Your task to perform on an android device: Go to Yahoo.com Image 0: 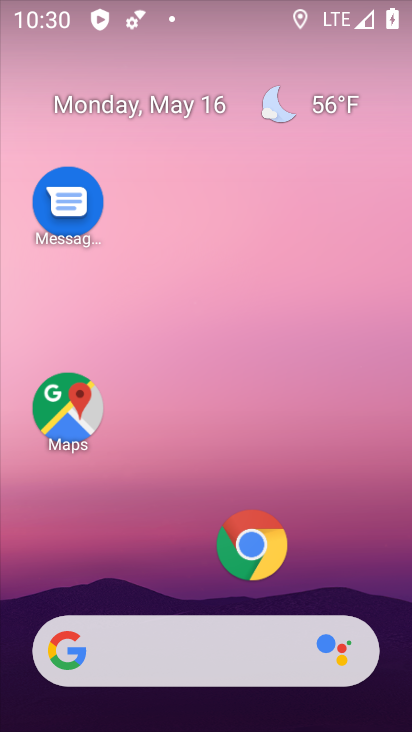
Step 0: click (231, 530)
Your task to perform on an android device: Go to Yahoo.com Image 1: 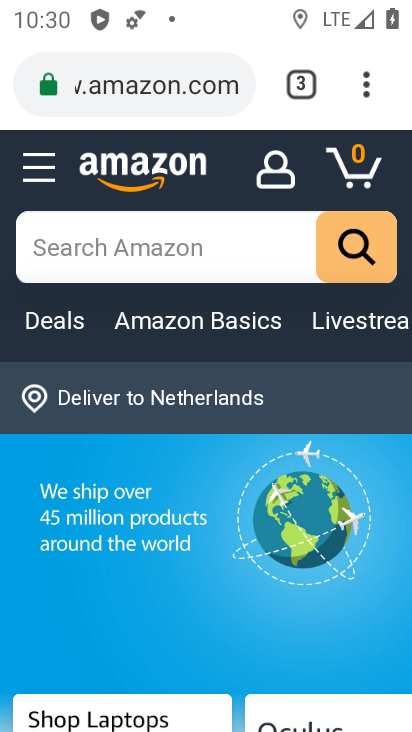
Step 1: click (294, 86)
Your task to perform on an android device: Go to Yahoo.com Image 2: 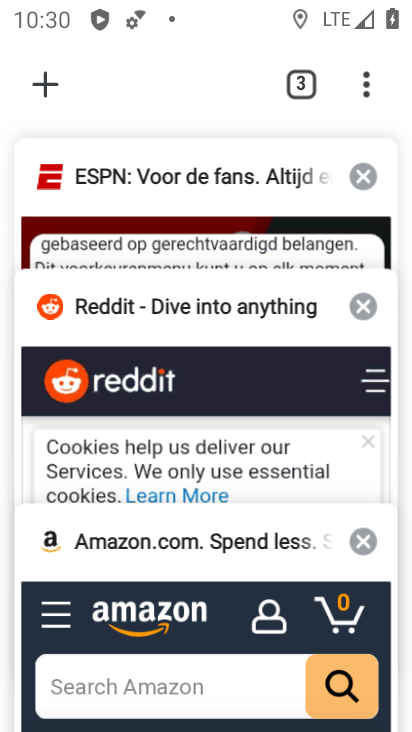
Step 2: click (44, 65)
Your task to perform on an android device: Go to Yahoo.com Image 3: 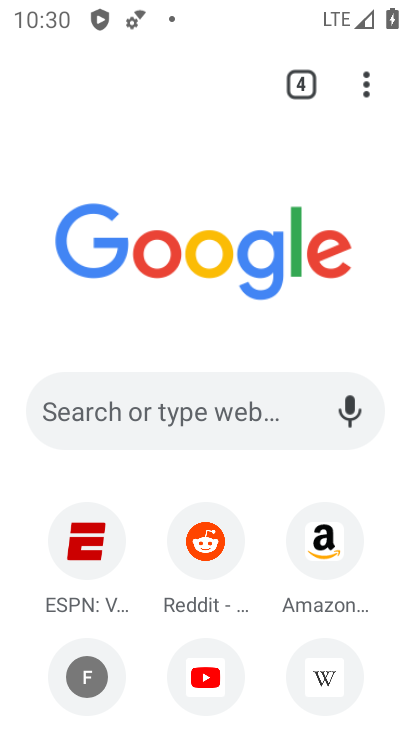
Step 3: click (195, 422)
Your task to perform on an android device: Go to Yahoo.com Image 4: 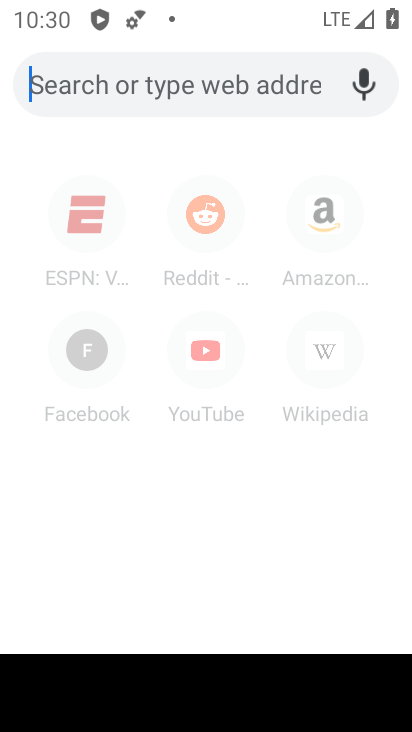
Step 4: type "yahhoo"
Your task to perform on an android device: Go to Yahoo.com Image 5: 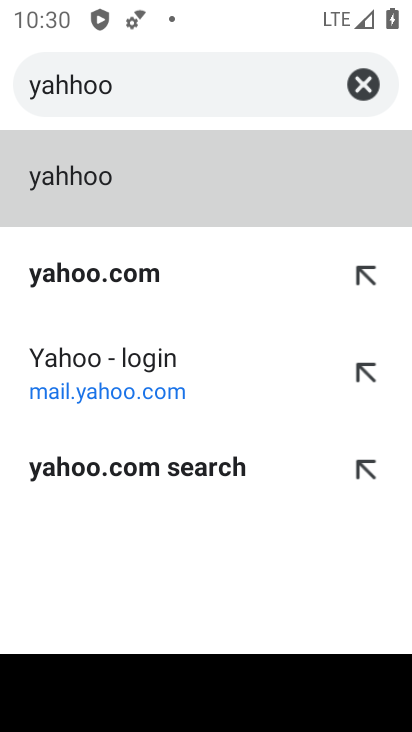
Step 5: click (49, 396)
Your task to perform on an android device: Go to Yahoo.com Image 6: 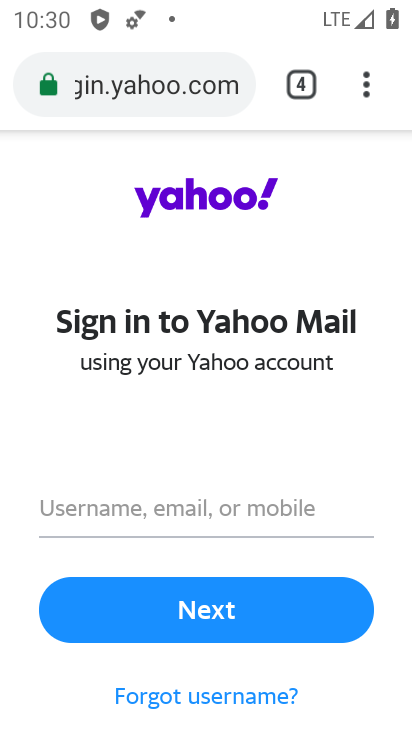
Step 6: task complete